Your task to perform on an android device: delete a single message in the gmail app Image 0: 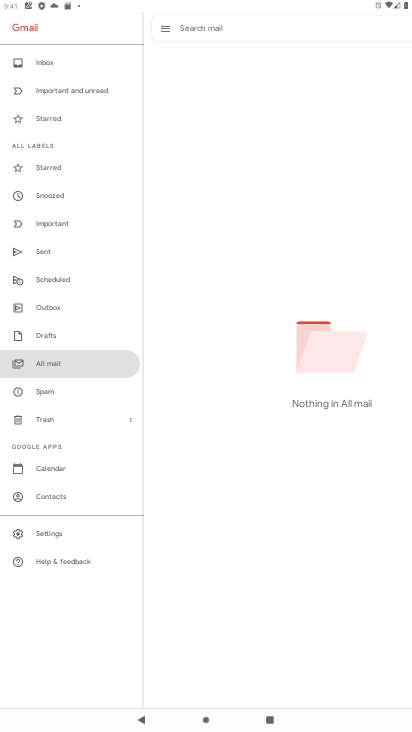
Step 0: task impossible